Your task to perform on an android device: Go to network settings Image 0: 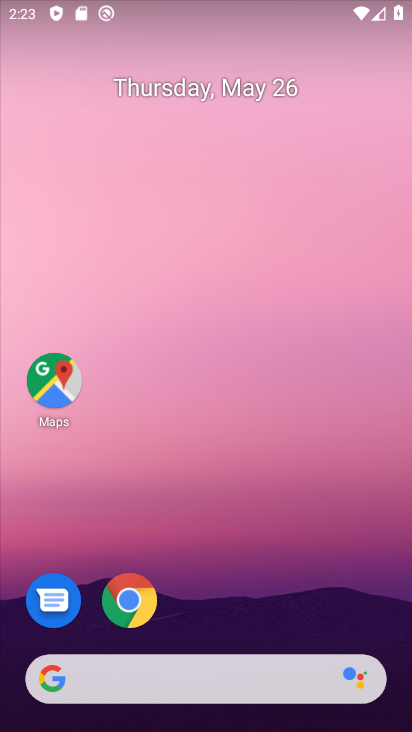
Step 0: drag from (211, 597) to (315, 73)
Your task to perform on an android device: Go to network settings Image 1: 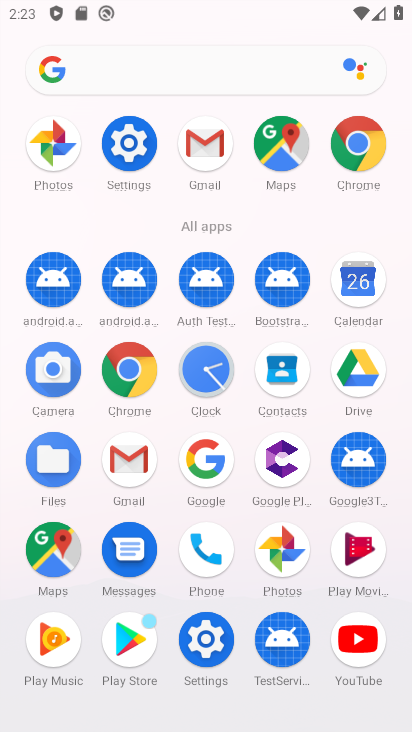
Step 1: drag from (267, 587) to (321, 368)
Your task to perform on an android device: Go to network settings Image 2: 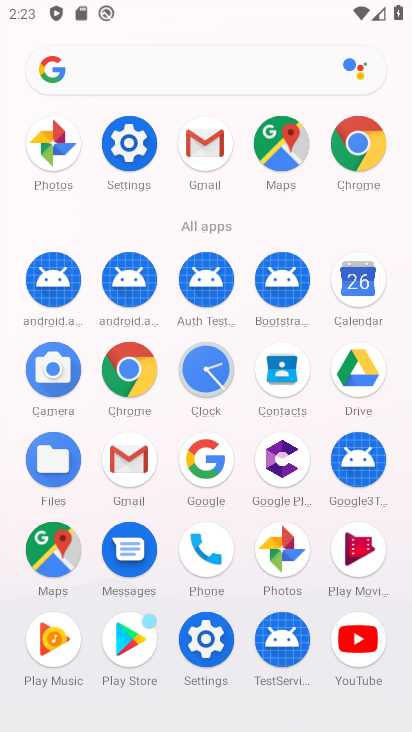
Step 2: click (215, 664)
Your task to perform on an android device: Go to network settings Image 3: 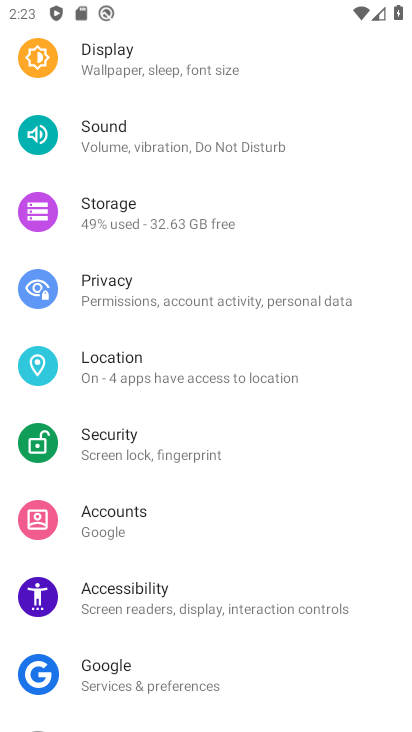
Step 3: drag from (199, 148) to (191, 641)
Your task to perform on an android device: Go to network settings Image 4: 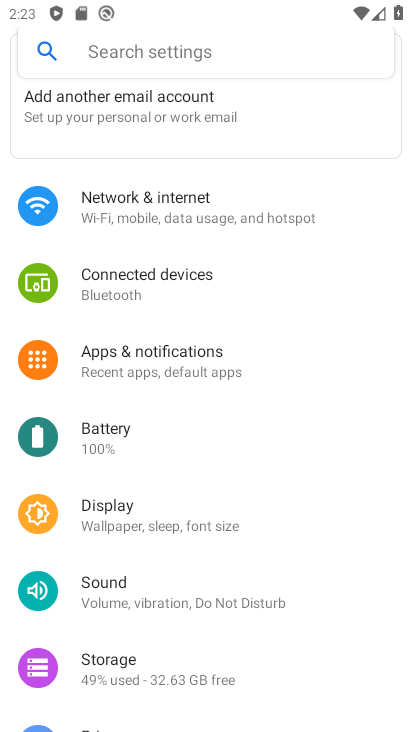
Step 4: click (185, 218)
Your task to perform on an android device: Go to network settings Image 5: 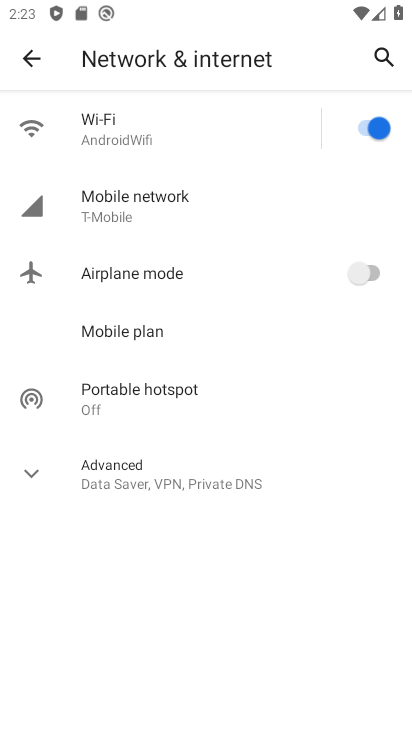
Step 5: click (172, 214)
Your task to perform on an android device: Go to network settings Image 6: 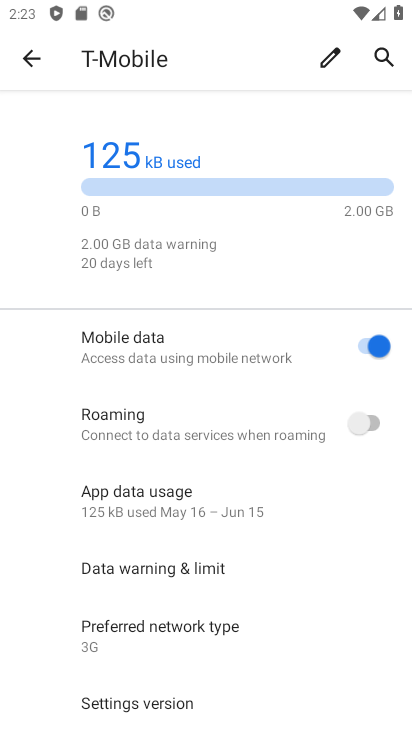
Step 6: task complete